Your task to perform on an android device: Go to internet settings Image 0: 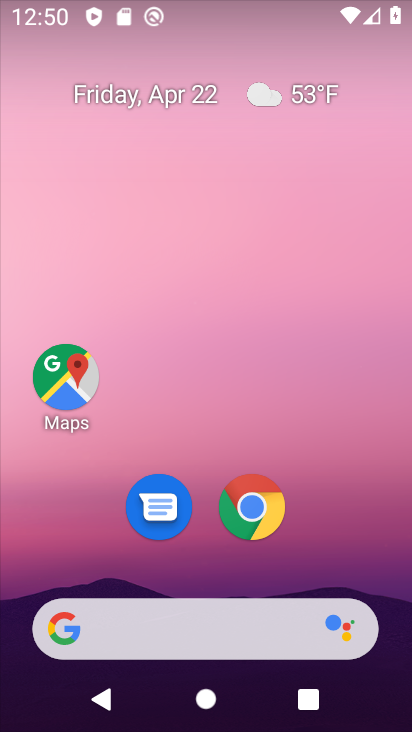
Step 0: drag from (232, 546) to (248, 173)
Your task to perform on an android device: Go to internet settings Image 1: 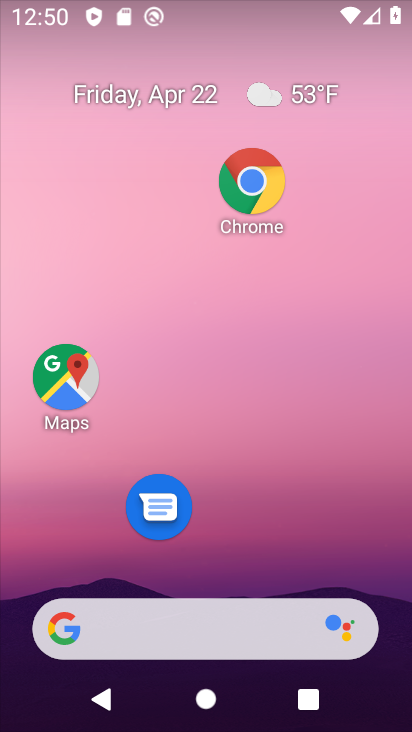
Step 1: drag from (228, 575) to (180, 169)
Your task to perform on an android device: Go to internet settings Image 2: 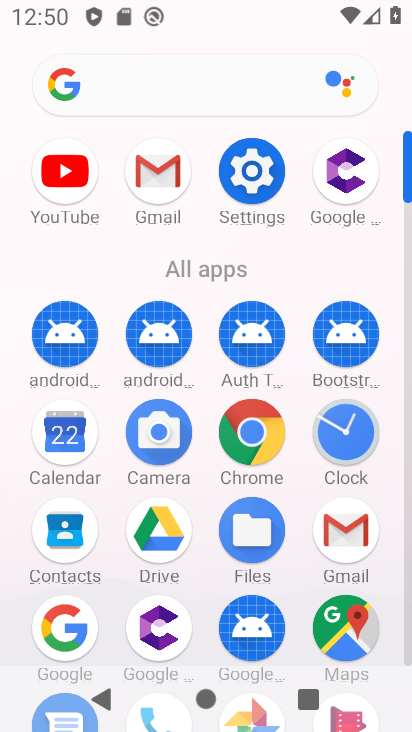
Step 2: click (273, 185)
Your task to perform on an android device: Go to internet settings Image 3: 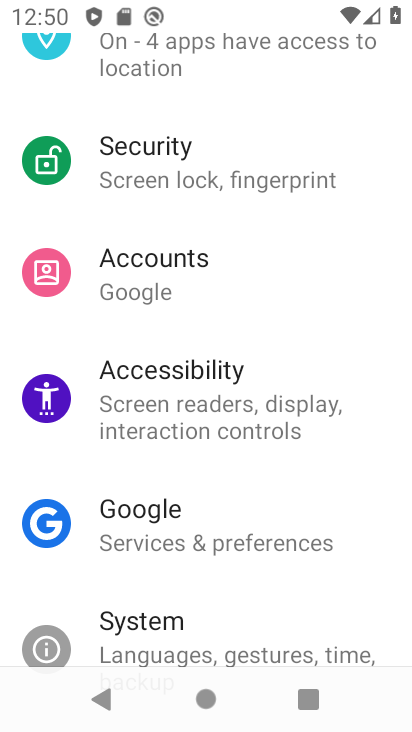
Step 3: drag from (261, 150) to (274, 651)
Your task to perform on an android device: Go to internet settings Image 4: 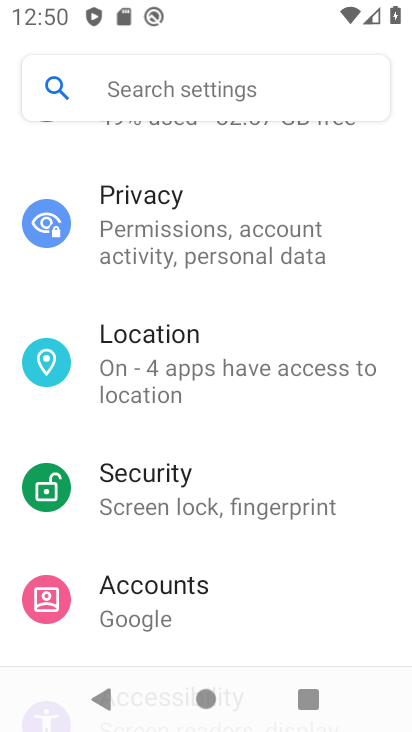
Step 4: drag from (257, 177) to (279, 578)
Your task to perform on an android device: Go to internet settings Image 5: 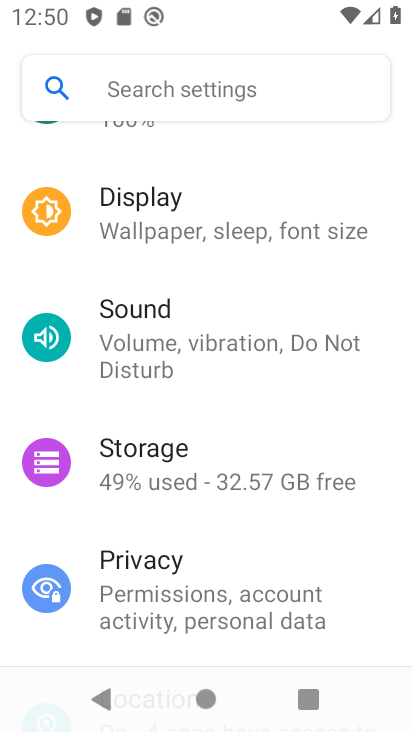
Step 5: drag from (237, 202) to (227, 617)
Your task to perform on an android device: Go to internet settings Image 6: 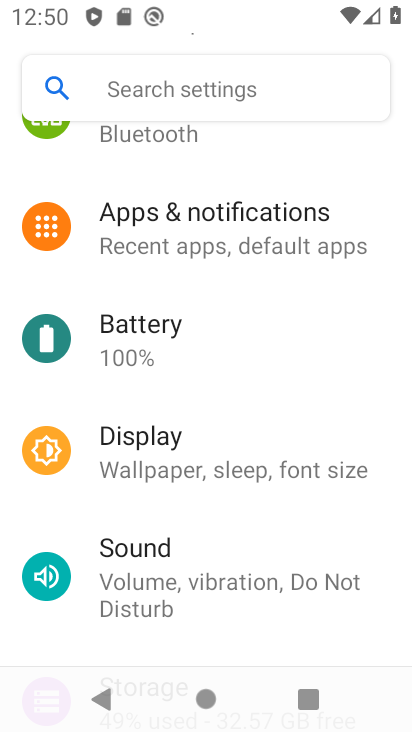
Step 6: drag from (234, 244) to (256, 696)
Your task to perform on an android device: Go to internet settings Image 7: 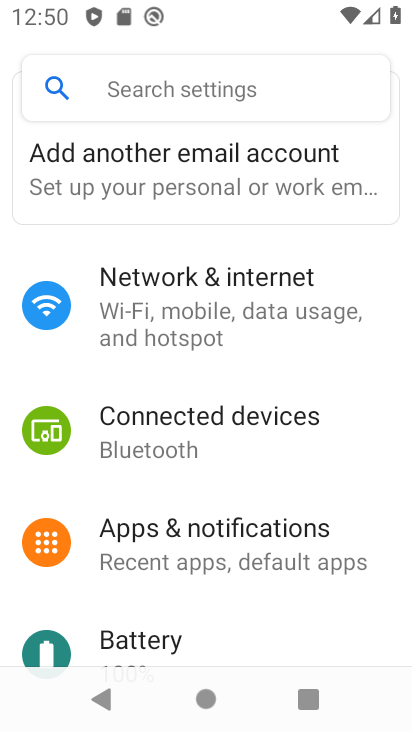
Step 7: click (205, 296)
Your task to perform on an android device: Go to internet settings Image 8: 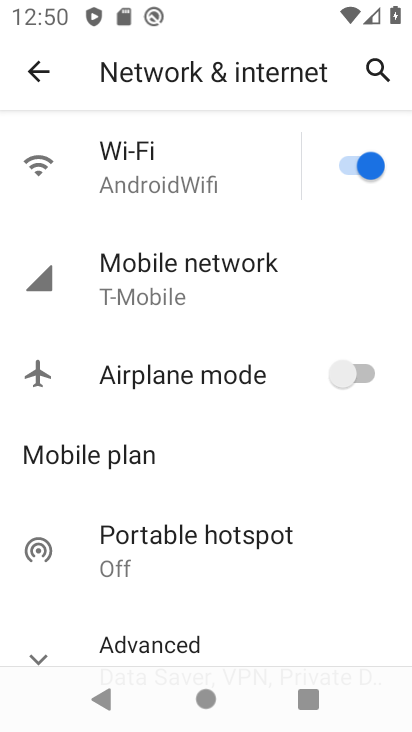
Step 8: task complete